Your task to perform on an android device: What's the weather? Image 0: 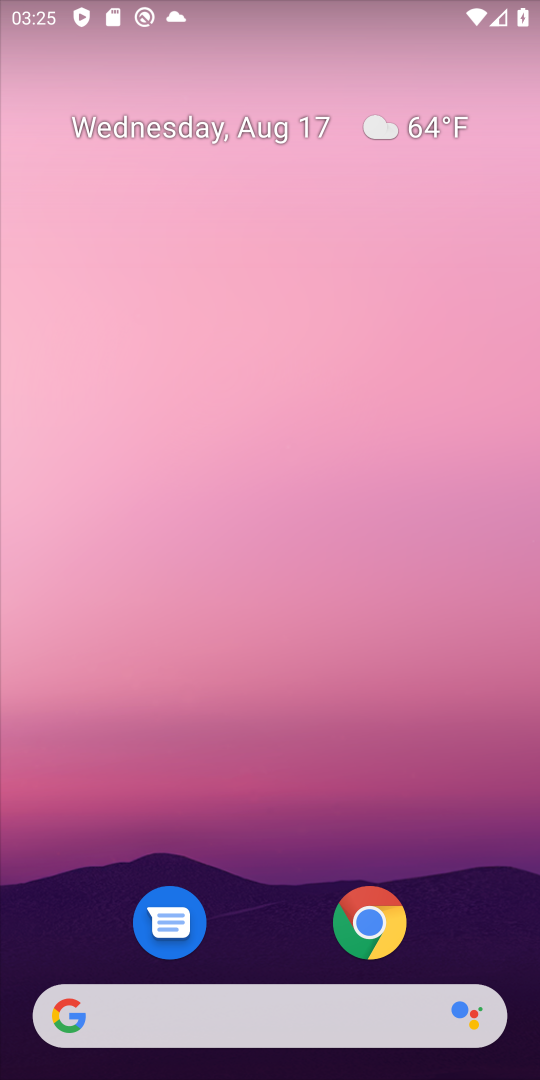
Step 0: press home button
Your task to perform on an android device: What's the weather? Image 1: 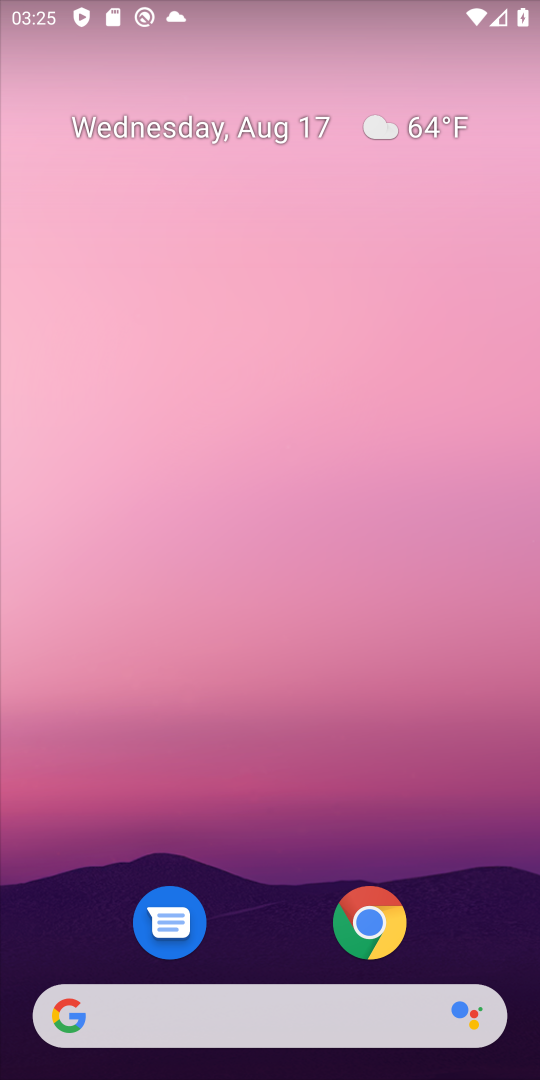
Step 1: click (185, 1002)
Your task to perform on an android device: What's the weather? Image 2: 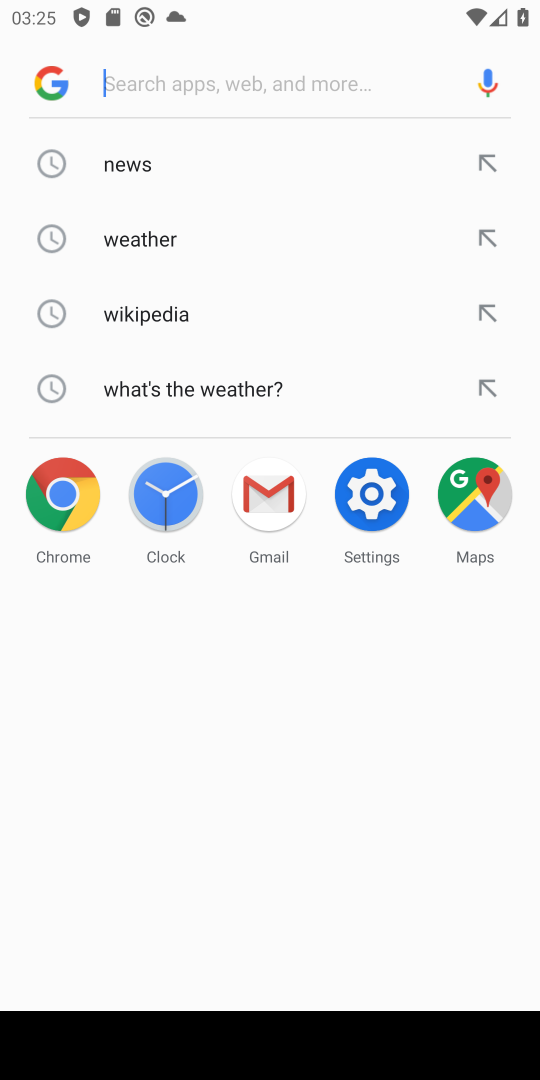
Step 2: click (141, 241)
Your task to perform on an android device: What's the weather? Image 3: 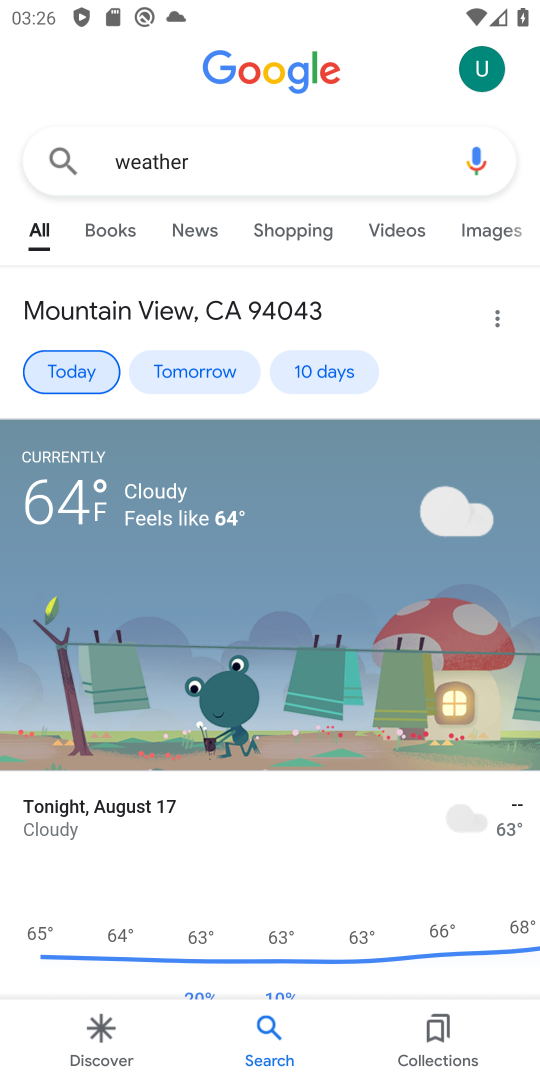
Step 3: task complete